Your task to perform on an android device: set default search engine in the chrome app Image 0: 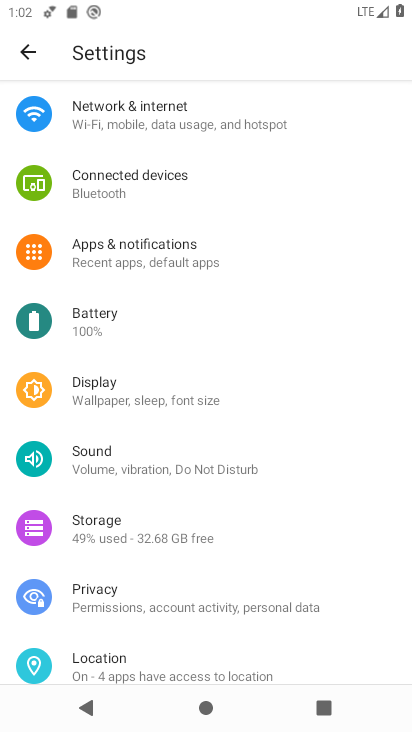
Step 0: press home button
Your task to perform on an android device: set default search engine in the chrome app Image 1: 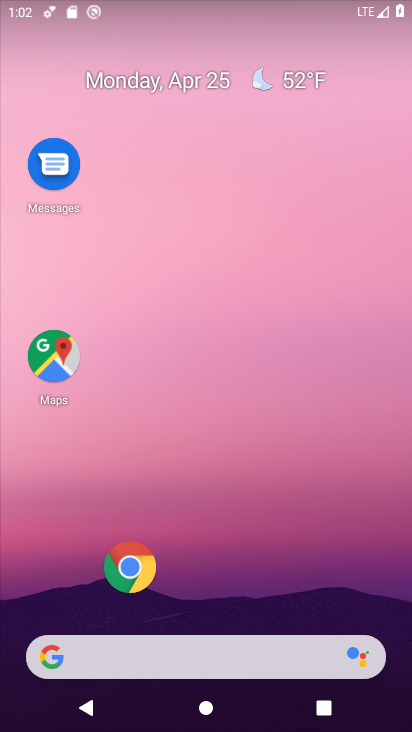
Step 1: drag from (235, 605) to (294, 3)
Your task to perform on an android device: set default search engine in the chrome app Image 2: 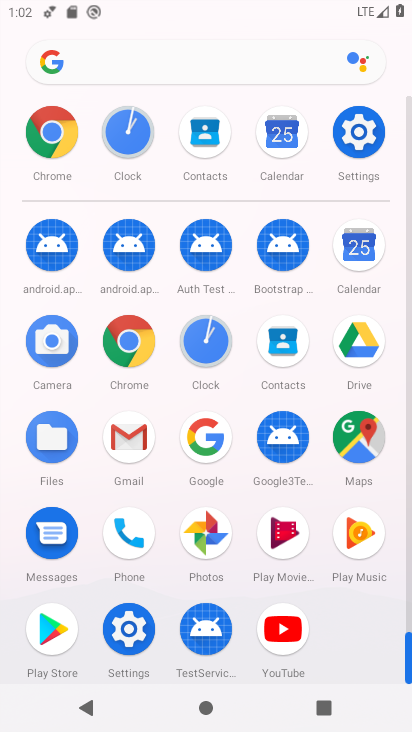
Step 2: click (122, 362)
Your task to perform on an android device: set default search engine in the chrome app Image 3: 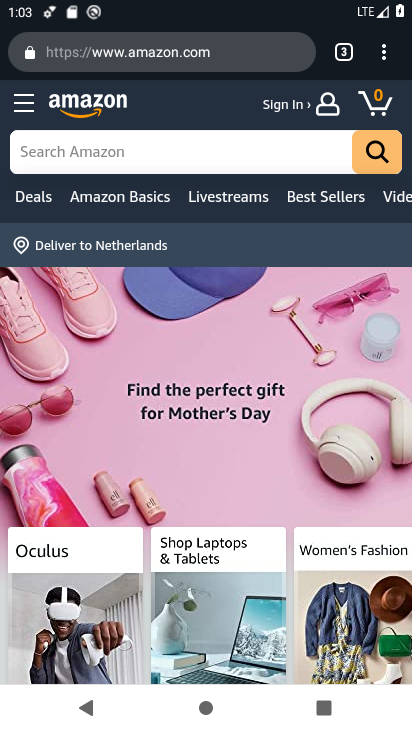
Step 3: click (384, 59)
Your task to perform on an android device: set default search engine in the chrome app Image 4: 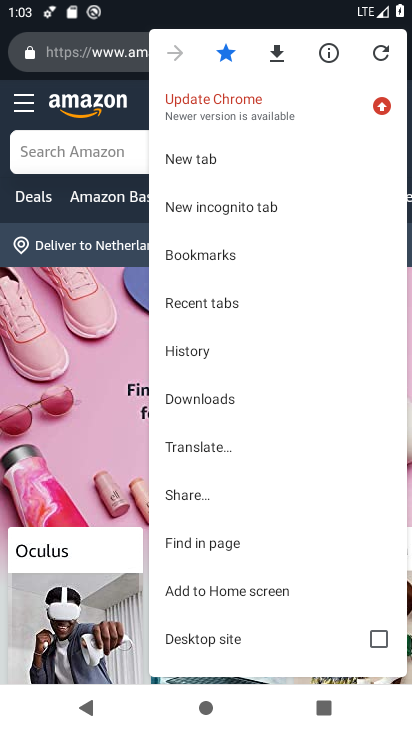
Step 4: click (317, 396)
Your task to perform on an android device: set default search engine in the chrome app Image 5: 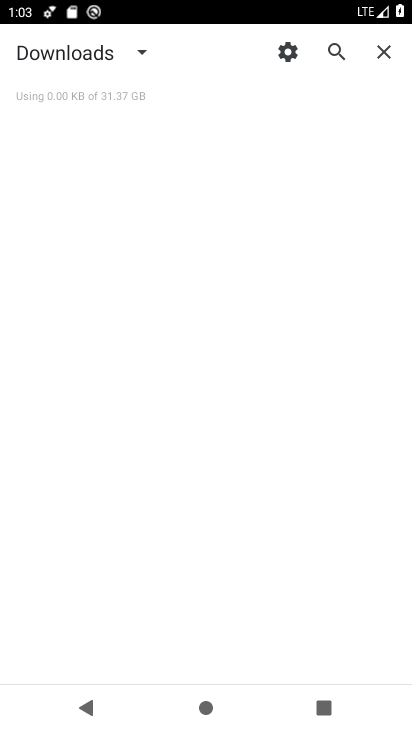
Step 5: click (81, 723)
Your task to perform on an android device: set default search engine in the chrome app Image 6: 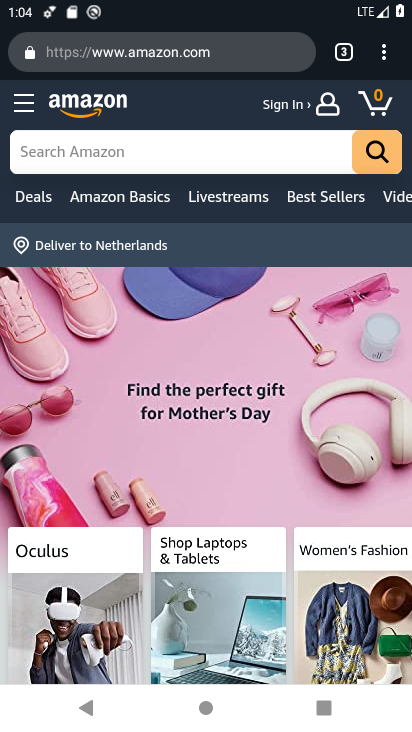
Step 6: click (390, 50)
Your task to perform on an android device: set default search engine in the chrome app Image 7: 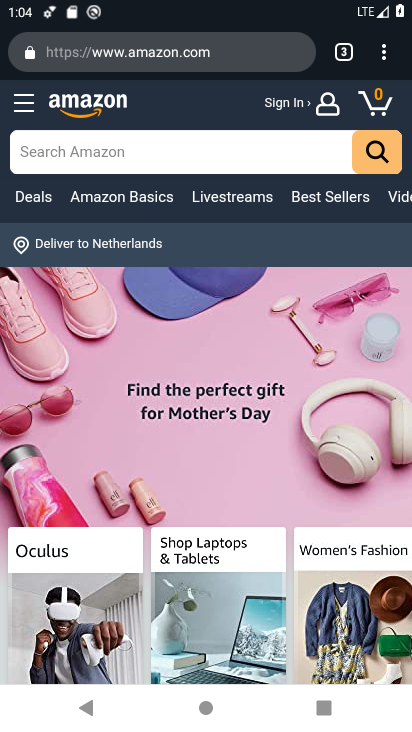
Step 7: click (378, 56)
Your task to perform on an android device: set default search engine in the chrome app Image 8: 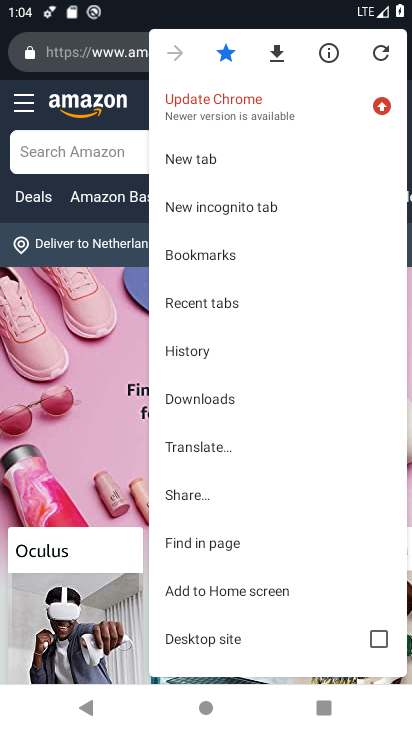
Step 8: drag from (273, 554) to (295, 256)
Your task to perform on an android device: set default search engine in the chrome app Image 9: 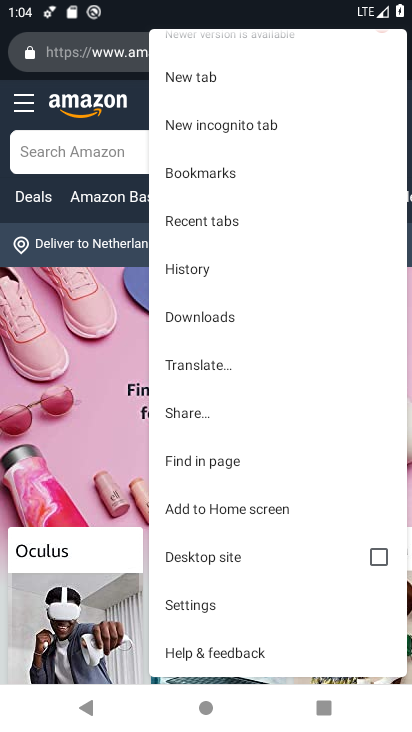
Step 9: click (208, 608)
Your task to perform on an android device: set default search engine in the chrome app Image 10: 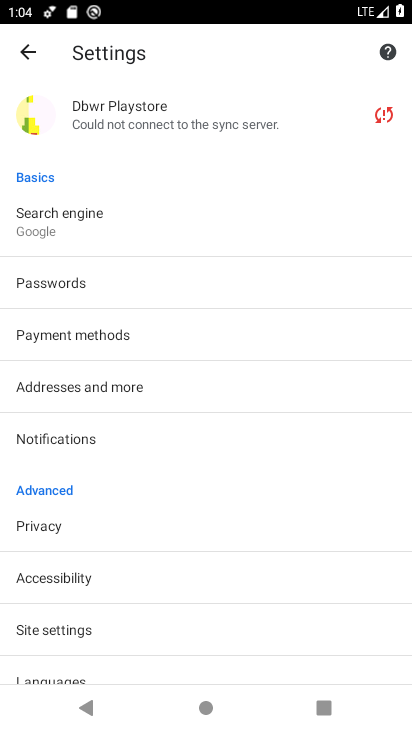
Step 10: drag from (191, 525) to (187, 179)
Your task to perform on an android device: set default search engine in the chrome app Image 11: 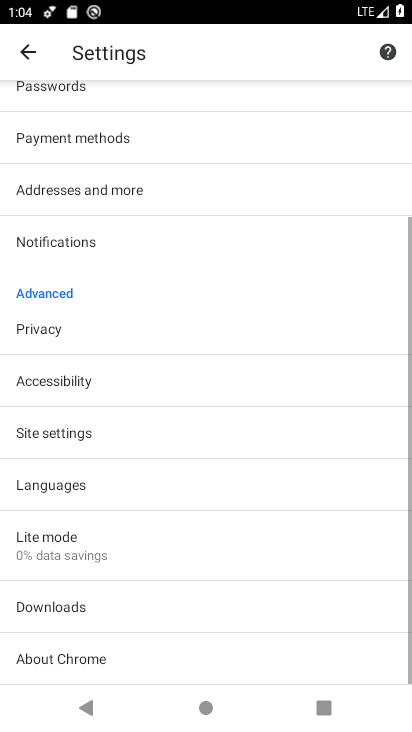
Step 11: drag from (193, 275) to (239, 710)
Your task to perform on an android device: set default search engine in the chrome app Image 12: 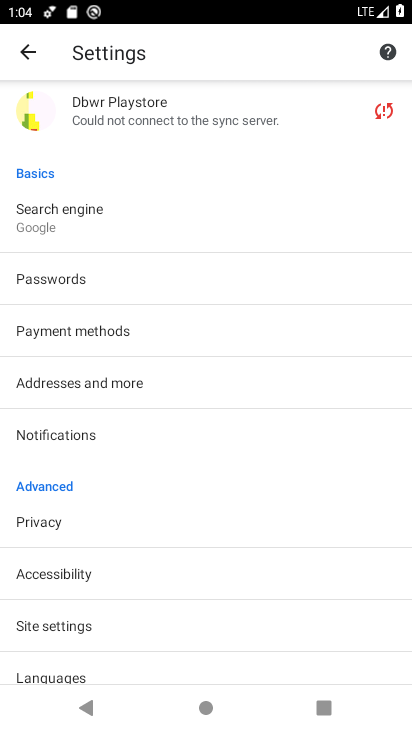
Step 12: click (149, 220)
Your task to perform on an android device: set default search engine in the chrome app Image 13: 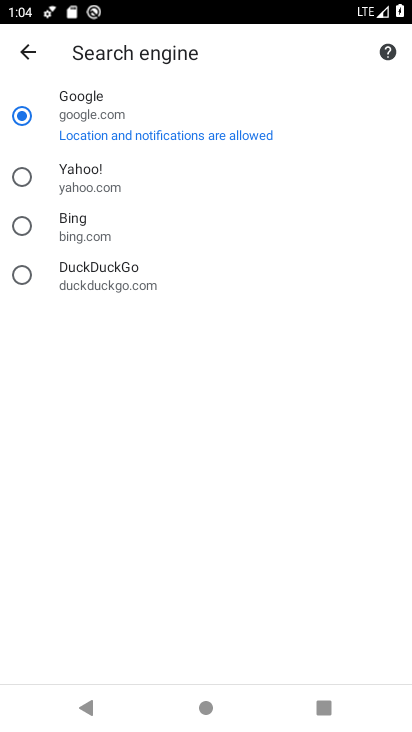
Step 13: task complete